Your task to perform on an android device: empty trash in the gmail app Image 0: 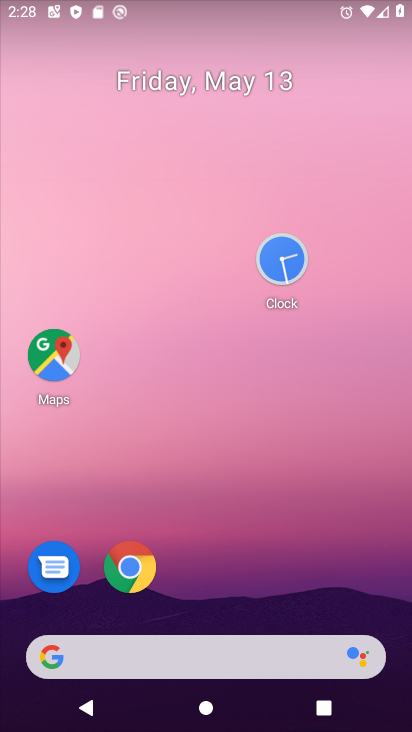
Step 0: drag from (367, 564) to (375, 70)
Your task to perform on an android device: empty trash in the gmail app Image 1: 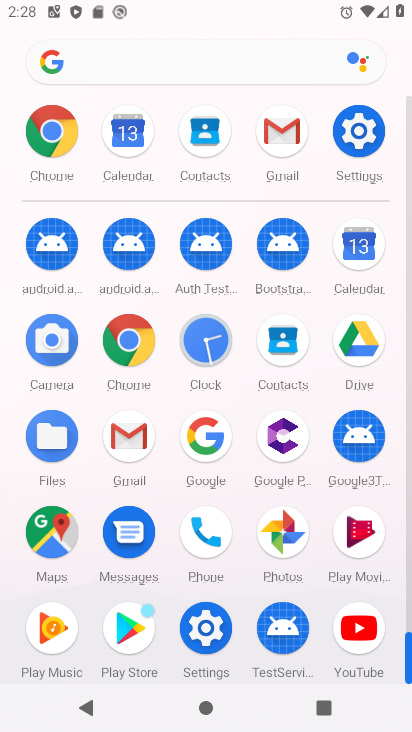
Step 1: click (276, 144)
Your task to perform on an android device: empty trash in the gmail app Image 2: 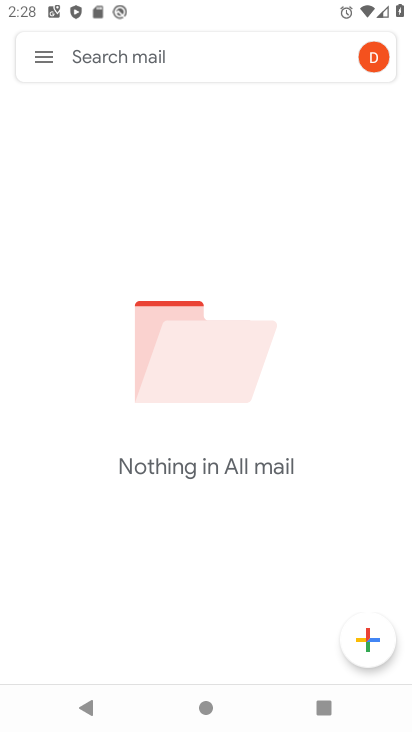
Step 2: click (43, 53)
Your task to perform on an android device: empty trash in the gmail app Image 3: 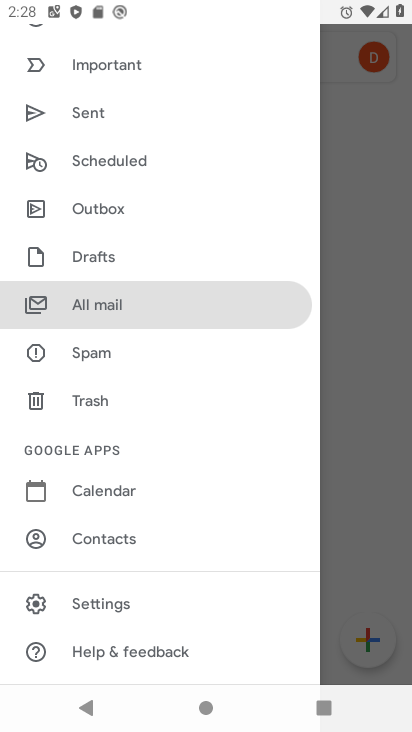
Step 3: click (106, 396)
Your task to perform on an android device: empty trash in the gmail app Image 4: 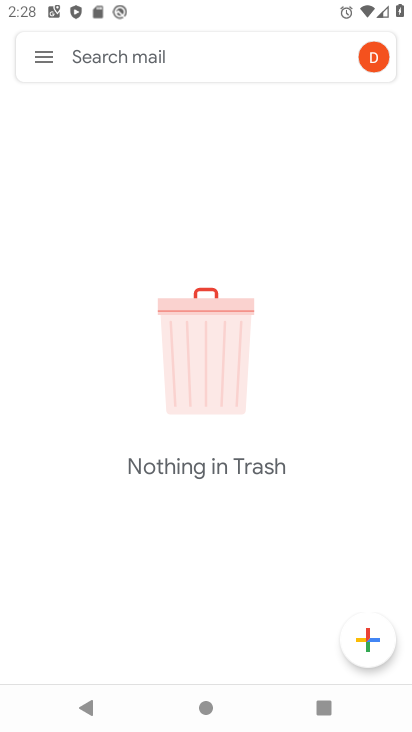
Step 4: task complete